Your task to perform on an android device: clear all cookies in the chrome app Image 0: 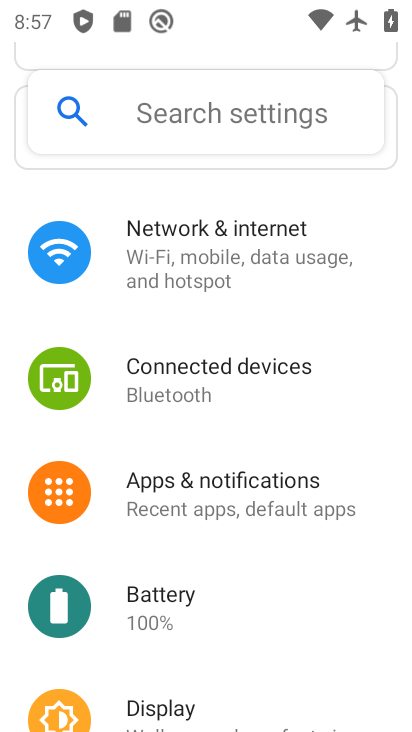
Step 0: press home button
Your task to perform on an android device: clear all cookies in the chrome app Image 1: 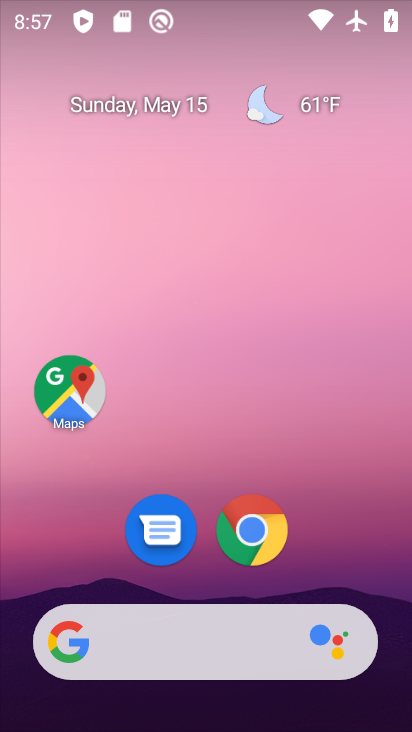
Step 1: click (253, 529)
Your task to perform on an android device: clear all cookies in the chrome app Image 2: 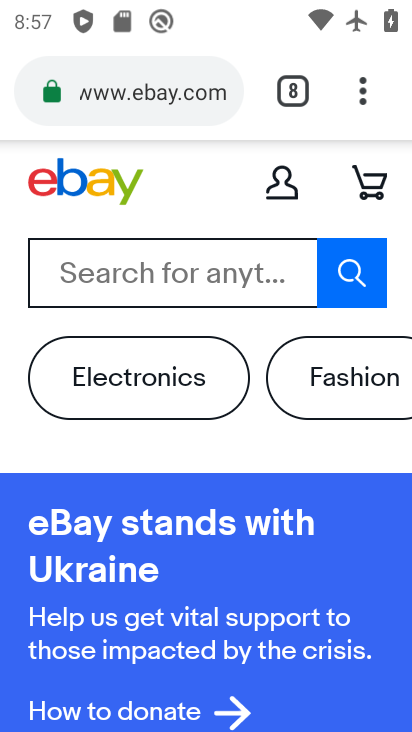
Step 2: click (364, 101)
Your task to perform on an android device: clear all cookies in the chrome app Image 3: 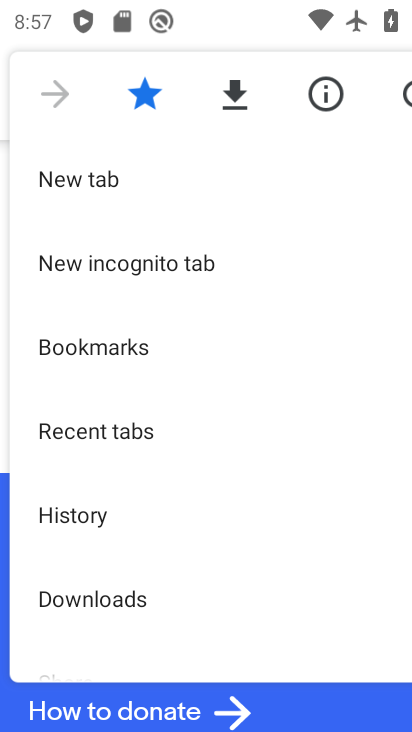
Step 3: drag from (139, 611) to (144, 131)
Your task to perform on an android device: clear all cookies in the chrome app Image 4: 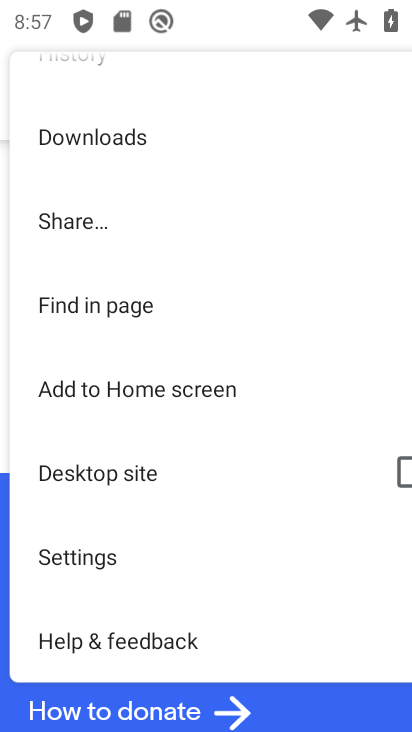
Step 4: drag from (190, 198) to (174, 504)
Your task to perform on an android device: clear all cookies in the chrome app Image 5: 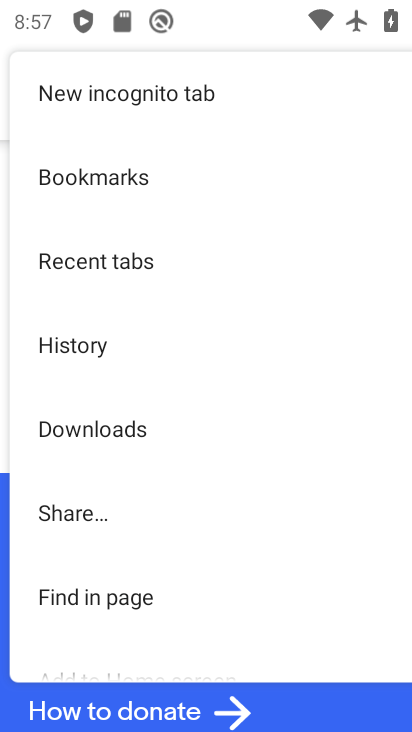
Step 5: click (68, 344)
Your task to perform on an android device: clear all cookies in the chrome app Image 6: 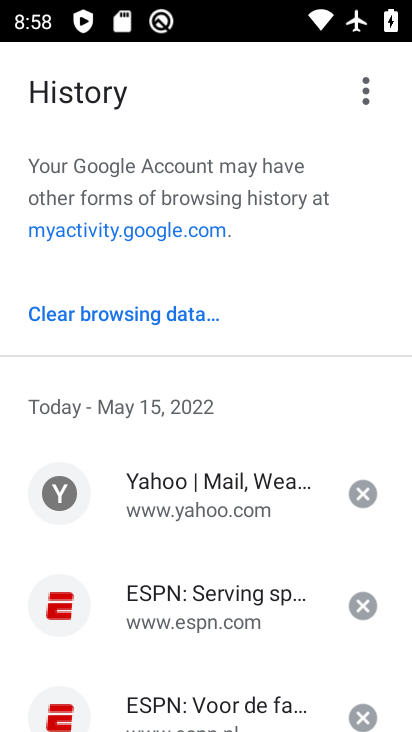
Step 6: click (93, 314)
Your task to perform on an android device: clear all cookies in the chrome app Image 7: 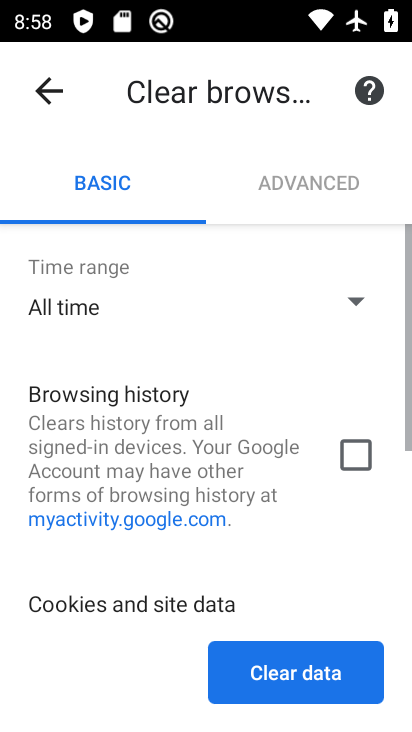
Step 7: drag from (236, 522) to (238, 170)
Your task to perform on an android device: clear all cookies in the chrome app Image 8: 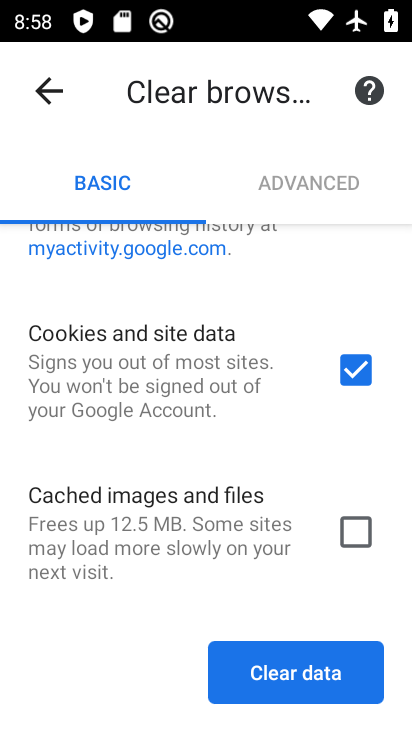
Step 8: click (273, 667)
Your task to perform on an android device: clear all cookies in the chrome app Image 9: 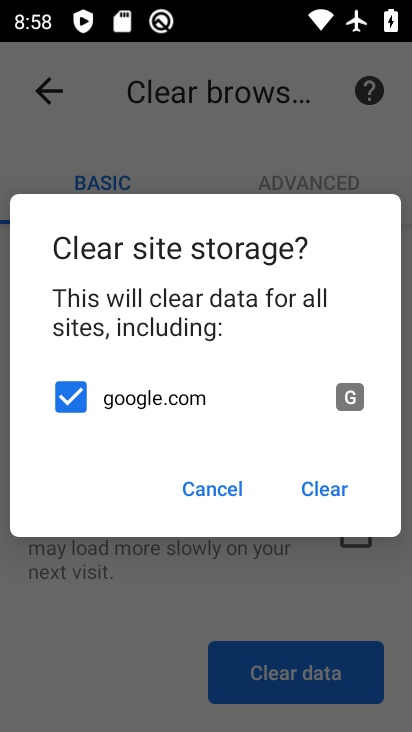
Step 9: click (320, 484)
Your task to perform on an android device: clear all cookies in the chrome app Image 10: 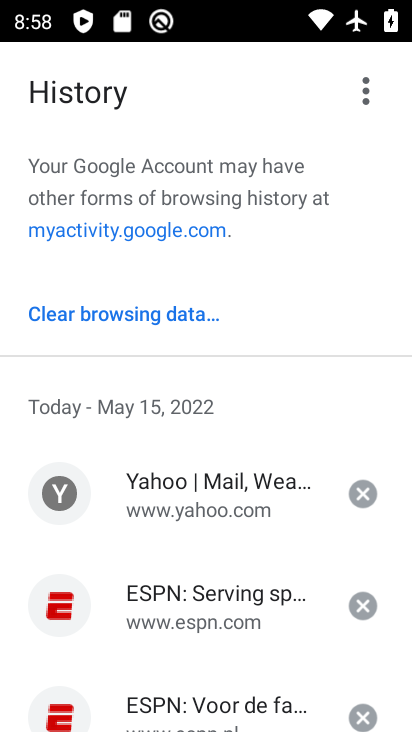
Step 10: task complete